Your task to perform on an android device: turn on location history Image 0: 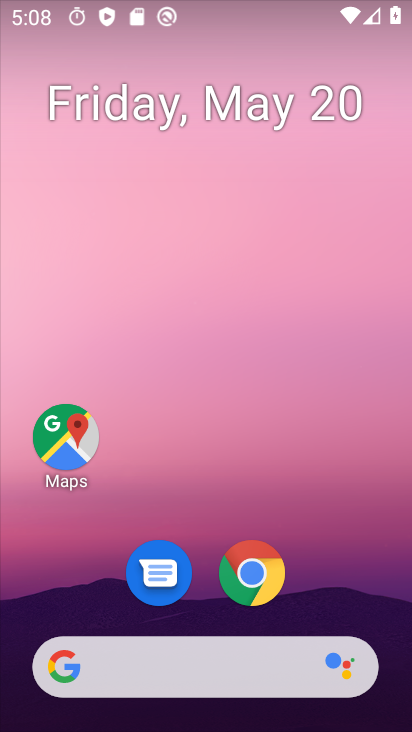
Step 0: drag from (346, 564) to (186, 8)
Your task to perform on an android device: turn on location history Image 1: 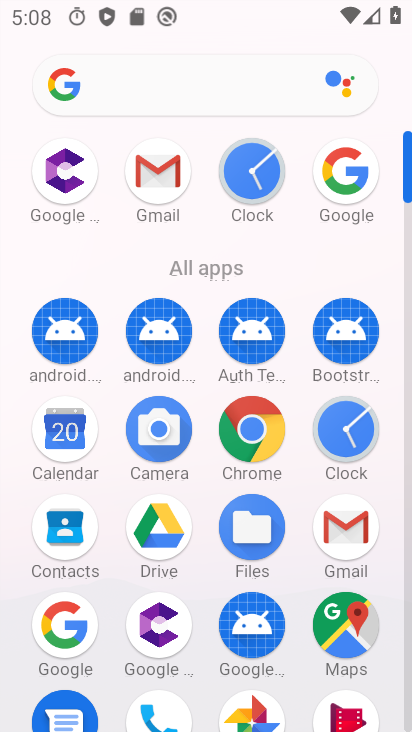
Step 1: drag from (206, 630) to (189, 154)
Your task to perform on an android device: turn on location history Image 2: 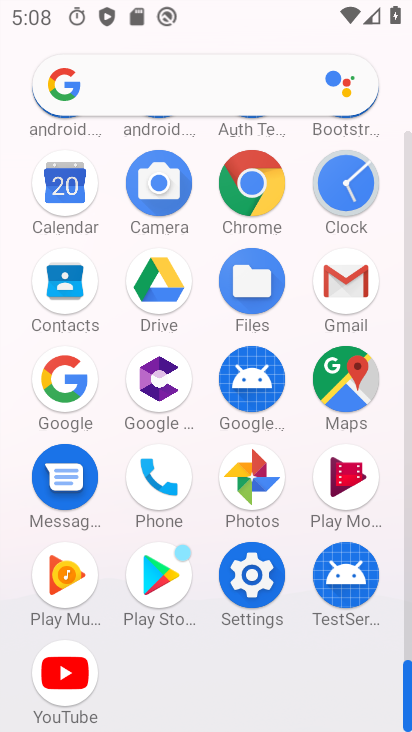
Step 2: click (248, 569)
Your task to perform on an android device: turn on location history Image 3: 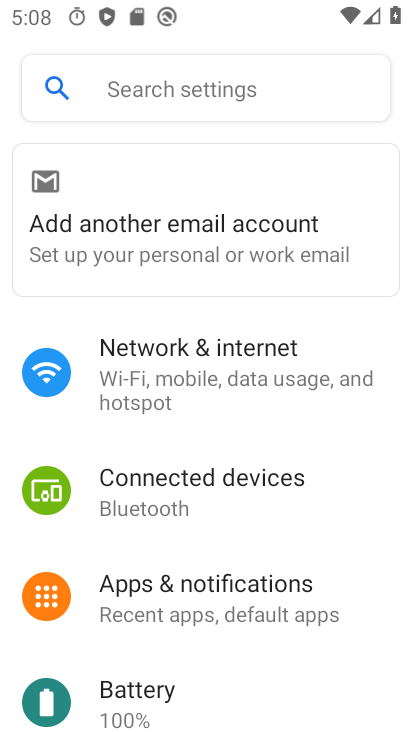
Step 3: drag from (235, 637) to (274, 281)
Your task to perform on an android device: turn on location history Image 4: 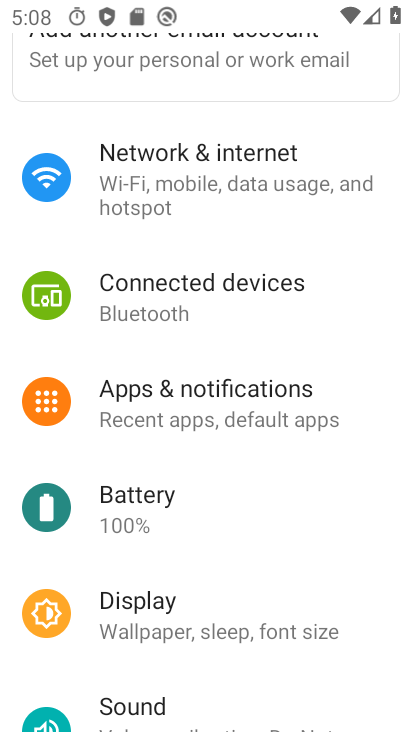
Step 4: drag from (266, 537) to (272, 122)
Your task to perform on an android device: turn on location history Image 5: 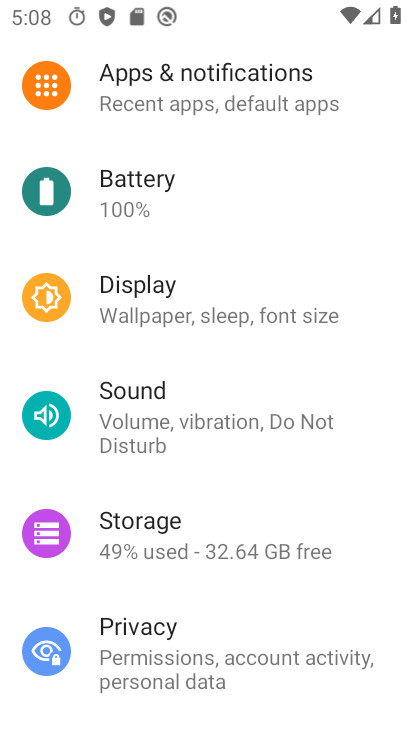
Step 5: drag from (259, 513) to (244, 140)
Your task to perform on an android device: turn on location history Image 6: 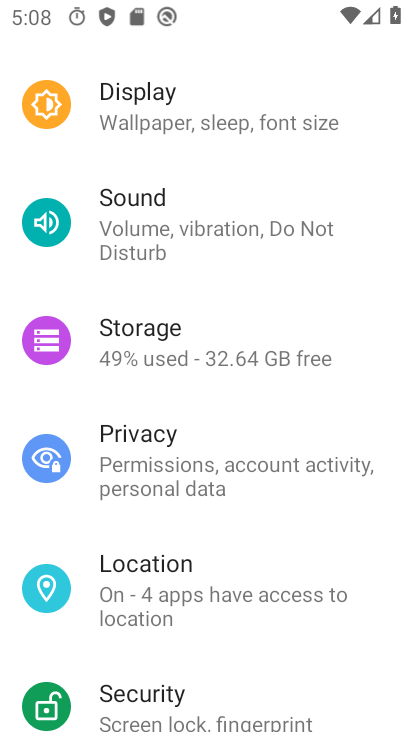
Step 6: click (186, 569)
Your task to perform on an android device: turn on location history Image 7: 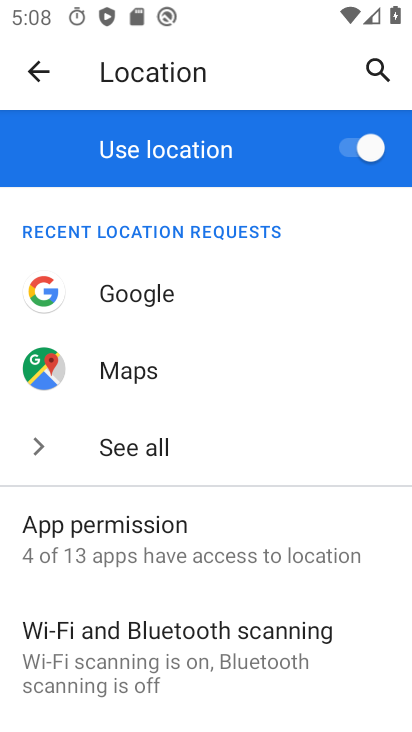
Step 7: drag from (248, 662) to (218, 170)
Your task to perform on an android device: turn on location history Image 8: 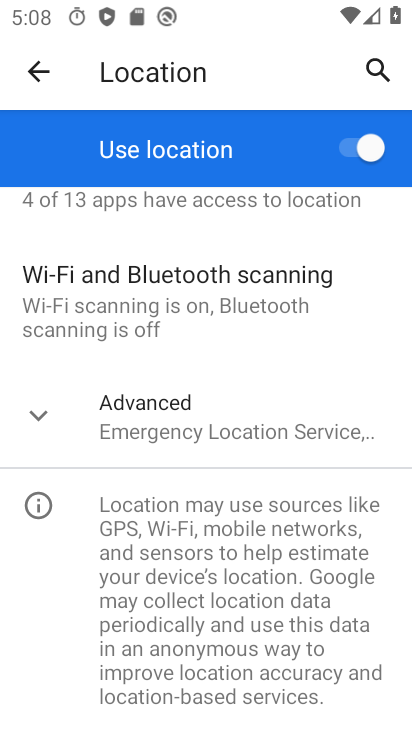
Step 8: click (170, 407)
Your task to perform on an android device: turn on location history Image 9: 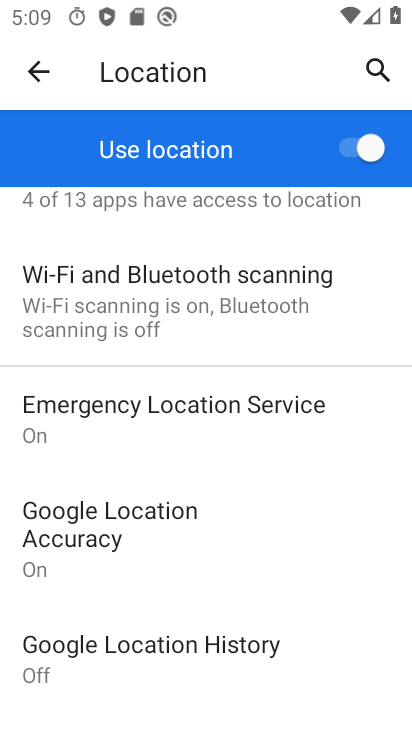
Step 9: click (224, 618)
Your task to perform on an android device: turn on location history Image 10: 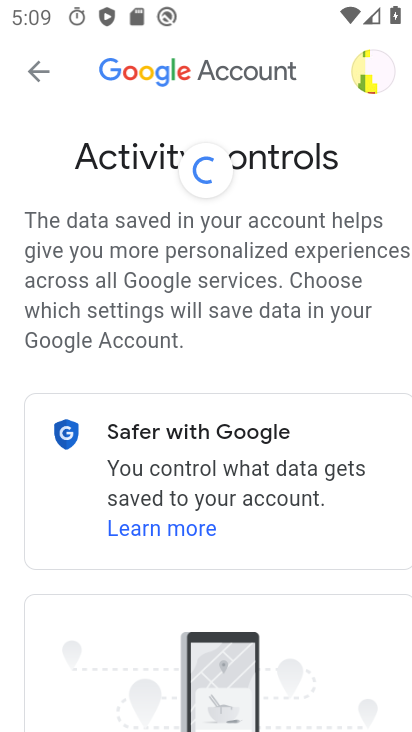
Step 10: drag from (280, 626) to (233, 242)
Your task to perform on an android device: turn on location history Image 11: 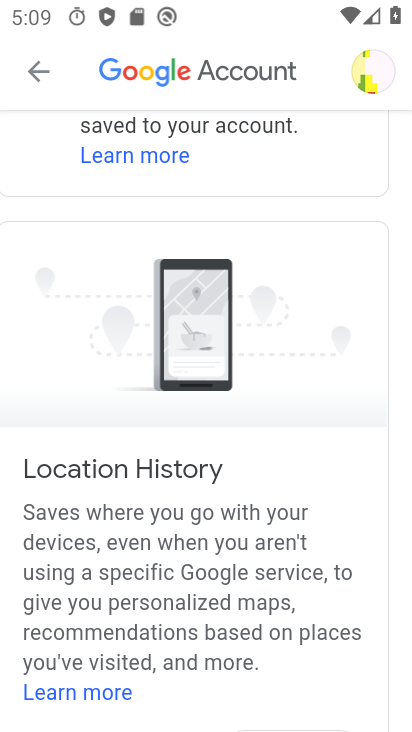
Step 11: drag from (248, 593) to (221, 284)
Your task to perform on an android device: turn on location history Image 12: 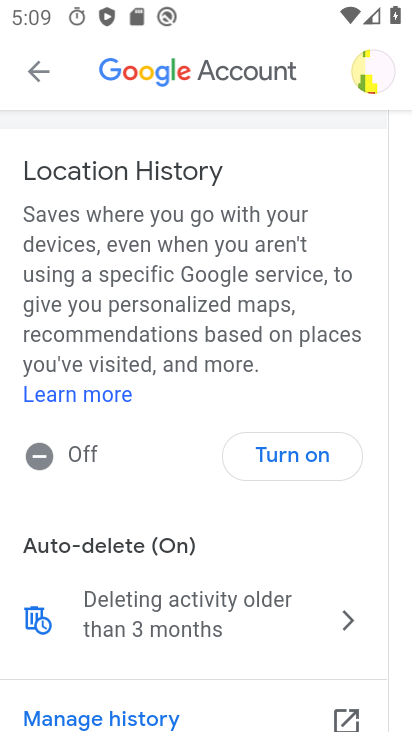
Step 12: click (292, 448)
Your task to perform on an android device: turn on location history Image 13: 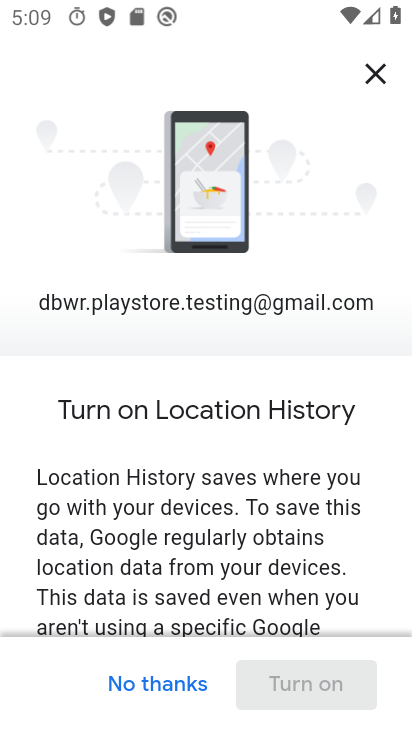
Step 13: drag from (254, 505) to (221, 90)
Your task to perform on an android device: turn on location history Image 14: 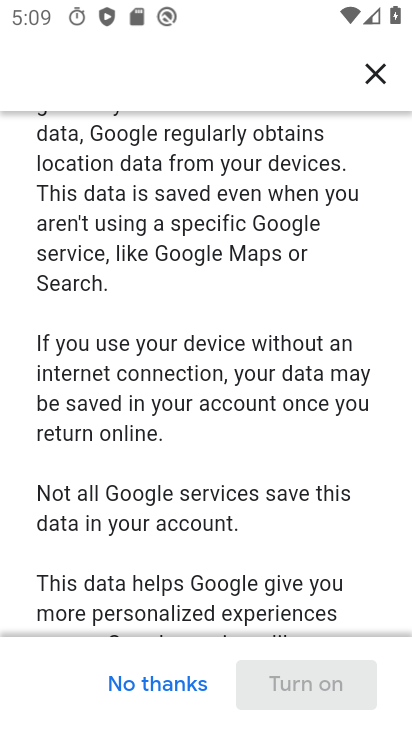
Step 14: drag from (225, 484) to (224, 120)
Your task to perform on an android device: turn on location history Image 15: 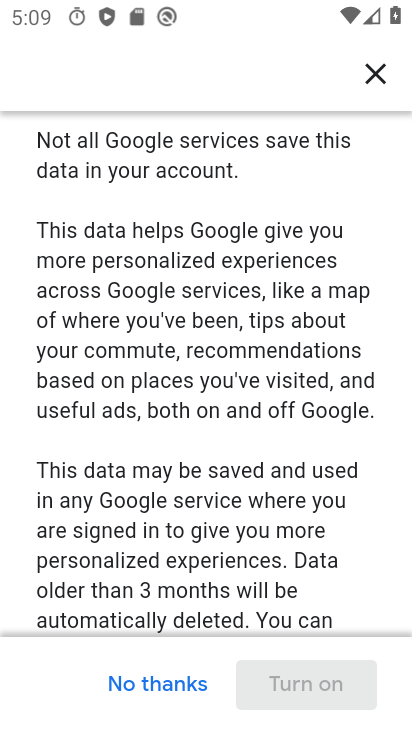
Step 15: drag from (261, 504) to (247, 138)
Your task to perform on an android device: turn on location history Image 16: 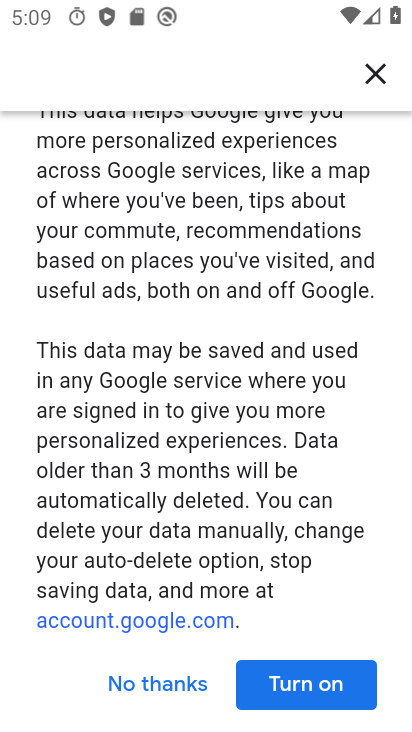
Step 16: click (307, 686)
Your task to perform on an android device: turn on location history Image 17: 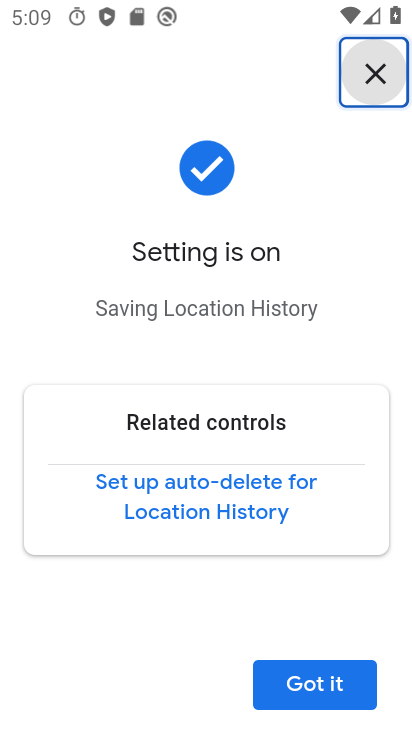
Step 17: click (308, 701)
Your task to perform on an android device: turn on location history Image 18: 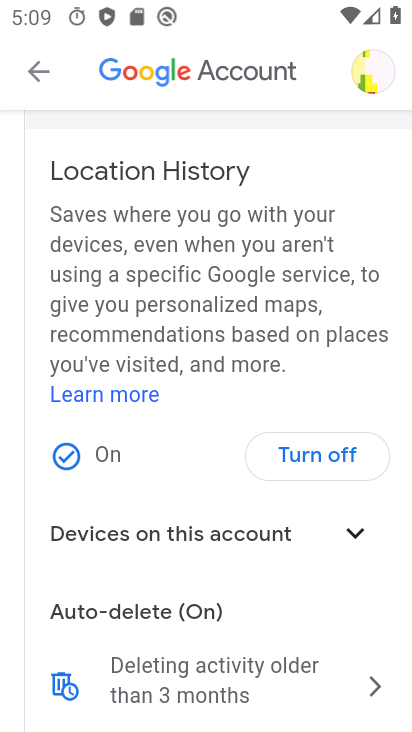
Step 18: task complete